Your task to perform on an android device: Go to CNN.com Image 0: 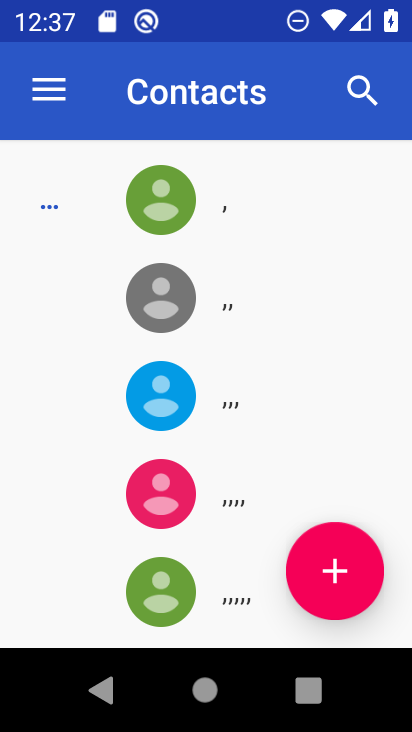
Step 0: press home button
Your task to perform on an android device: Go to CNN.com Image 1: 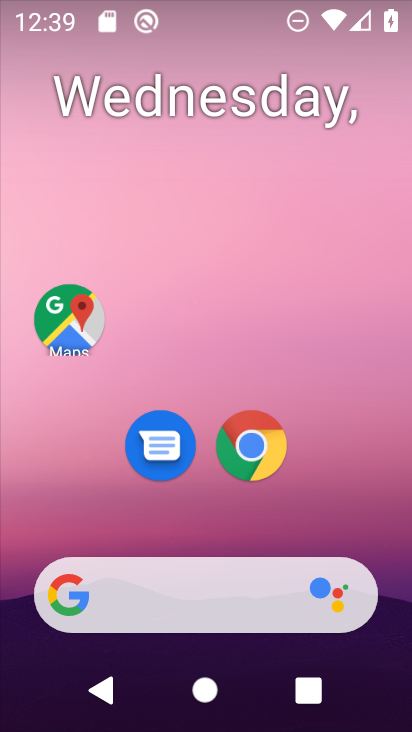
Step 1: drag from (396, 630) to (328, 2)
Your task to perform on an android device: Go to CNN.com Image 2: 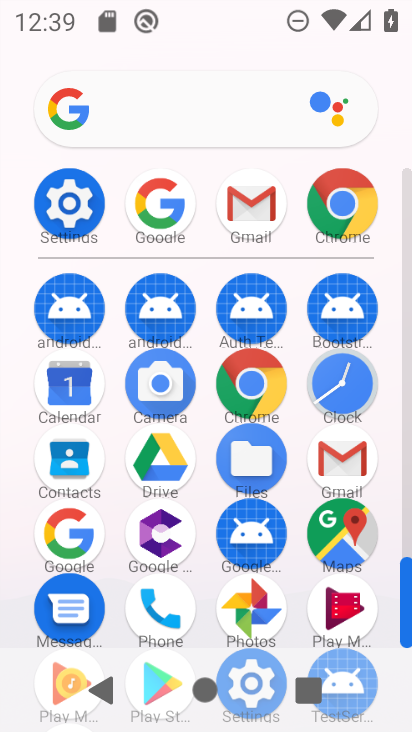
Step 2: click (83, 524)
Your task to perform on an android device: Go to CNN.com Image 3: 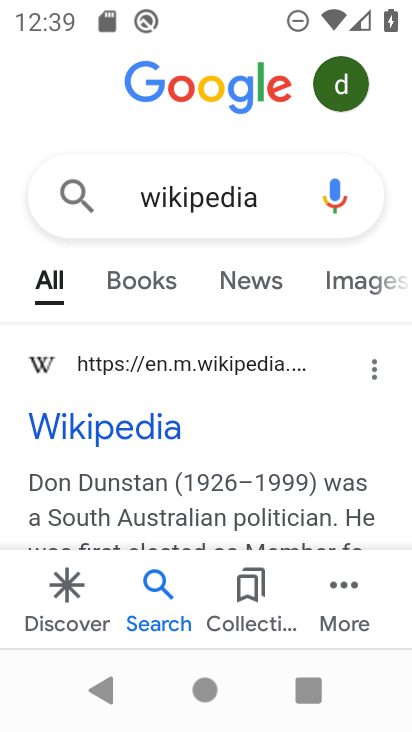
Step 3: press back button
Your task to perform on an android device: Go to CNN.com Image 4: 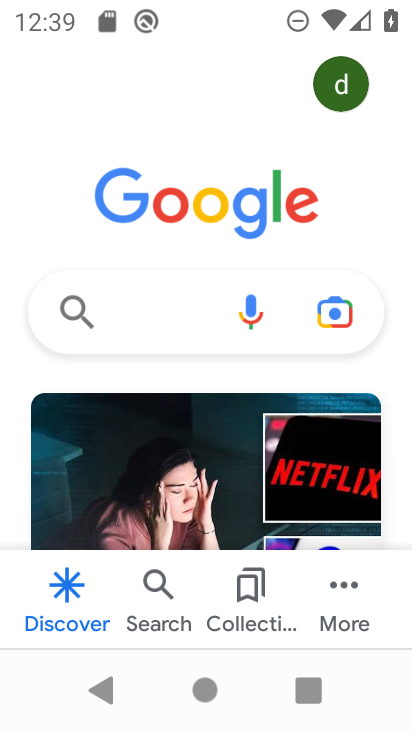
Step 4: click (105, 297)
Your task to perform on an android device: Go to CNN.com Image 5: 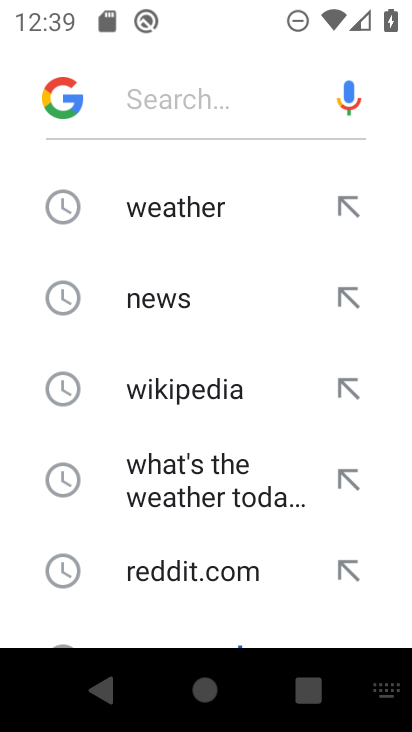
Step 5: drag from (140, 551) to (206, 140)
Your task to perform on an android device: Go to CNN.com Image 6: 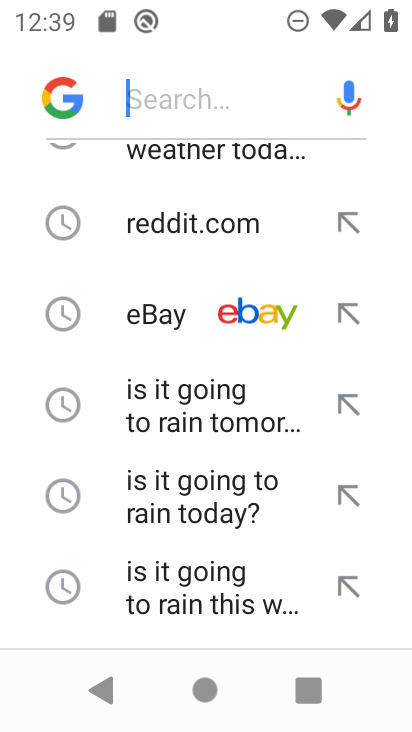
Step 6: drag from (184, 588) to (213, 131)
Your task to perform on an android device: Go to CNN.com Image 7: 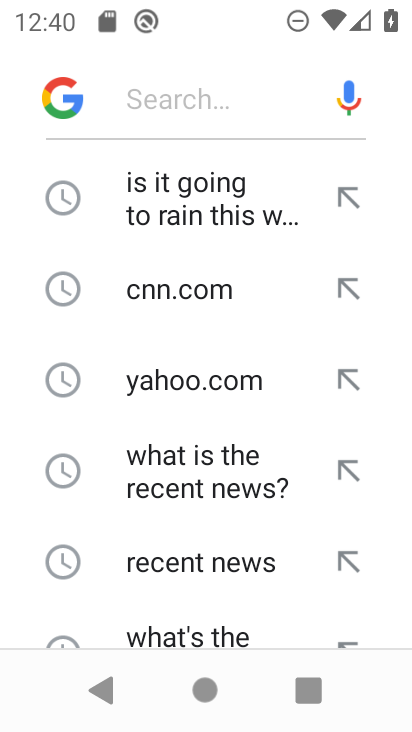
Step 7: click (228, 314)
Your task to perform on an android device: Go to CNN.com Image 8: 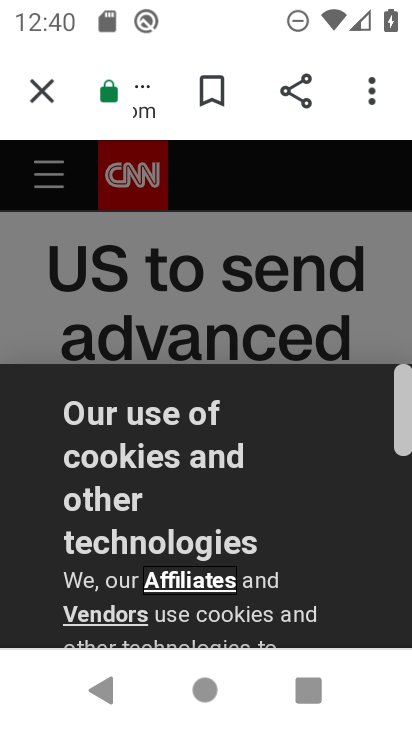
Step 8: task complete